Your task to perform on an android device: Go to Amazon Image 0: 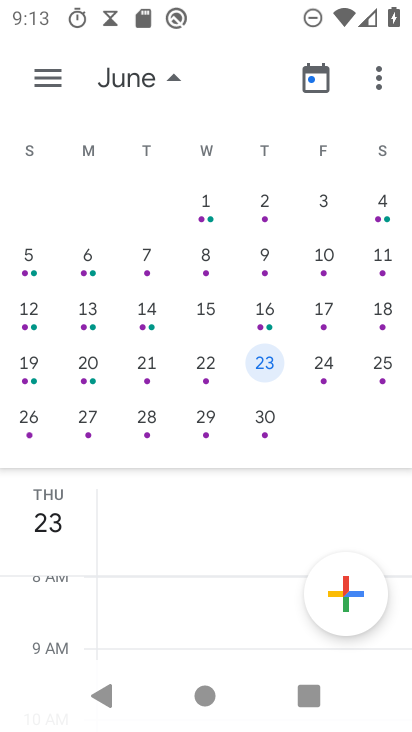
Step 0: press home button
Your task to perform on an android device: Go to Amazon Image 1: 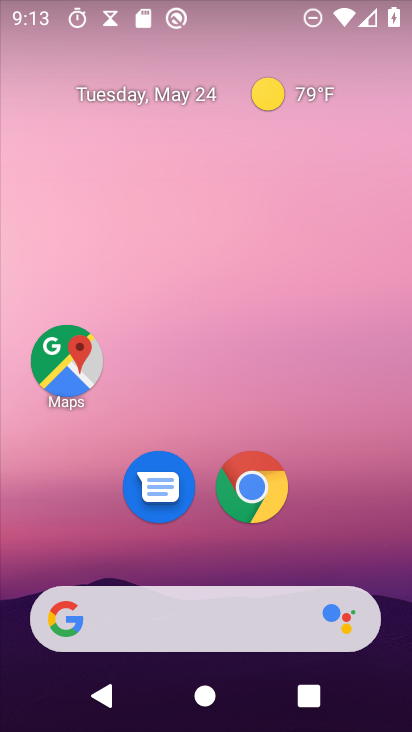
Step 1: click (247, 494)
Your task to perform on an android device: Go to Amazon Image 2: 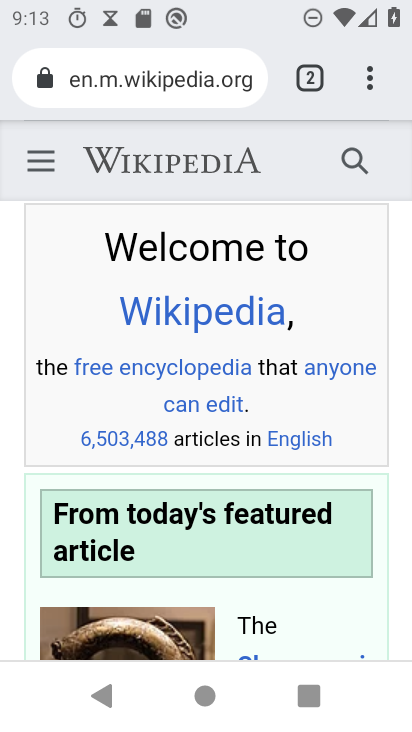
Step 2: click (308, 82)
Your task to perform on an android device: Go to Amazon Image 3: 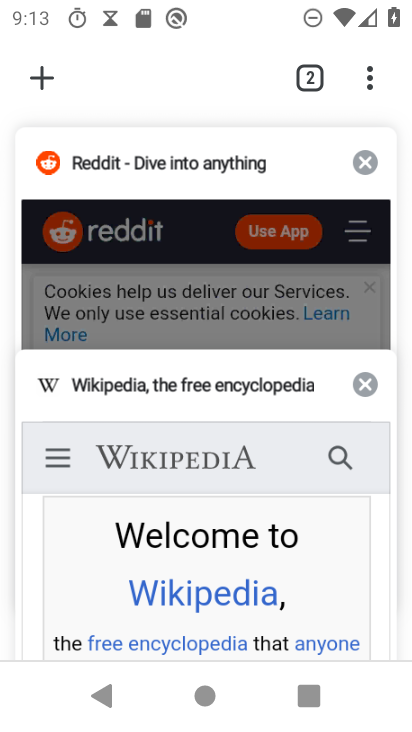
Step 3: click (364, 157)
Your task to perform on an android device: Go to Amazon Image 4: 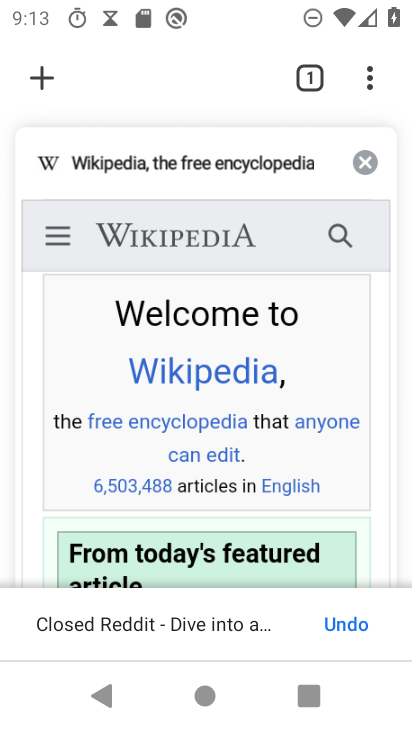
Step 4: click (363, 162)
Your task to perform on an android device: Go to Amazon Image 5: 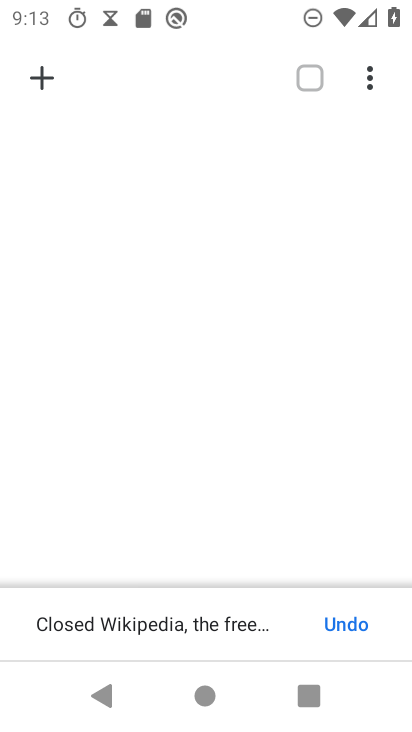
Step 5: click (49, 75)
Your task to perform on an android device: Go to Amazon Image 6: 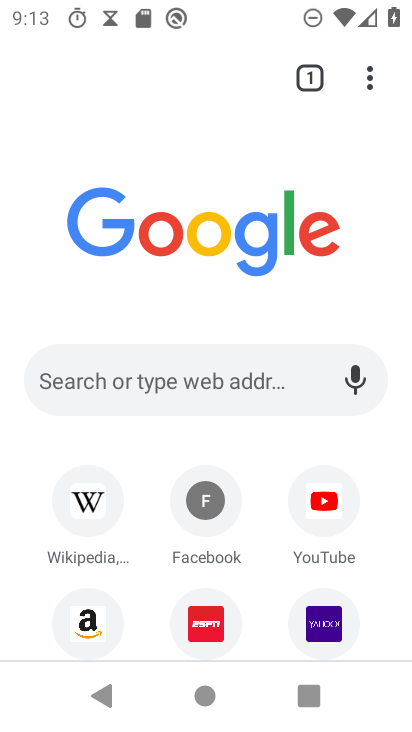
Step 6: click (83, 616)
Your task to perform on an android device: Go to Amazon Image 7: 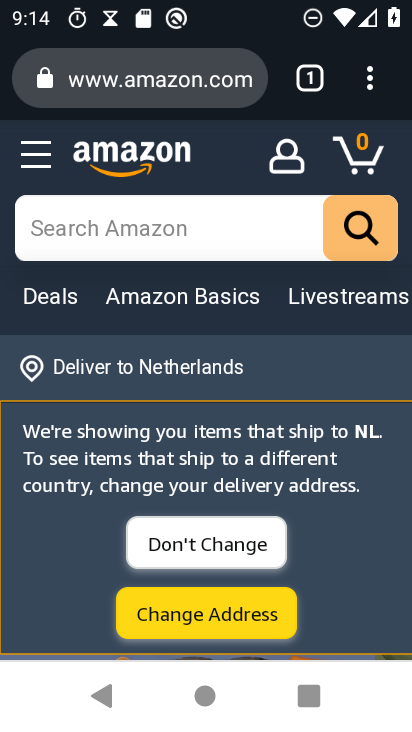
Step 7: press home button
Your task to perform on an android device: Go to Amazon Image 8: 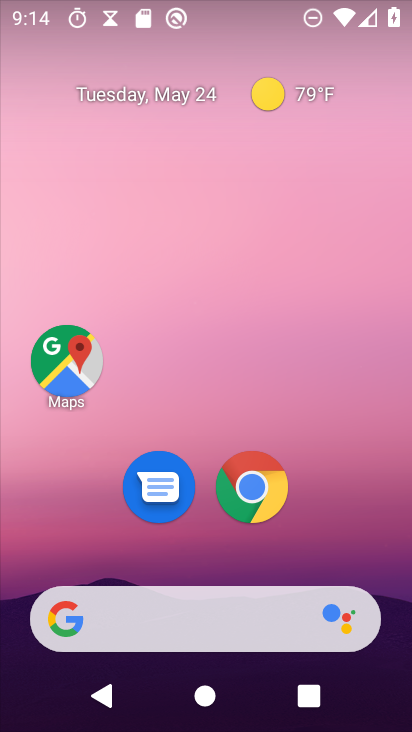
Step 8: click (265, 477)
Your task to perform on an android device: Go to Amazon Image 9: 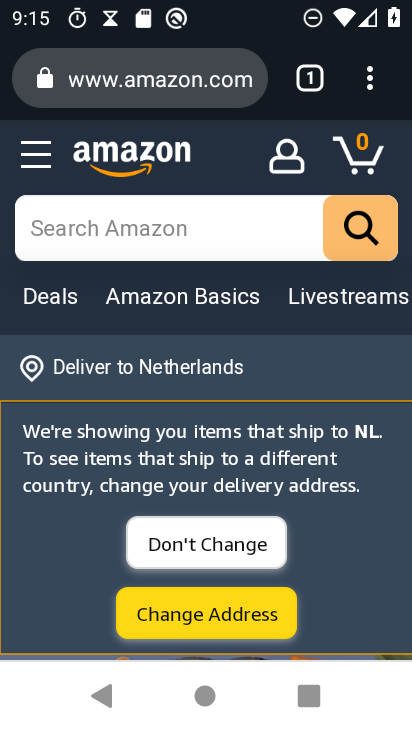
Step 9: task complete